Your task to perform on an android device: show emergency info Image 0: 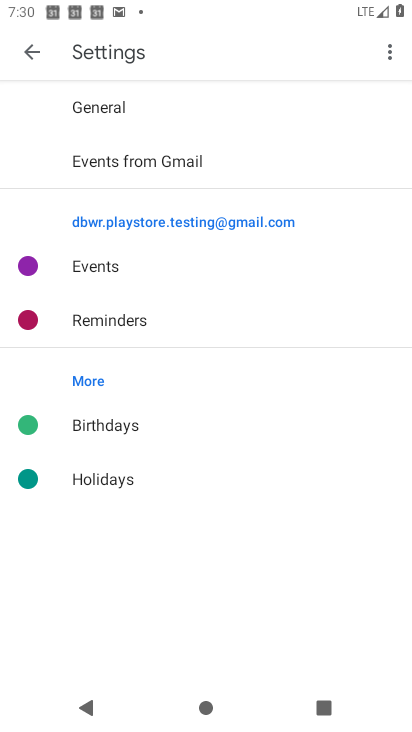
Step 0: press home button
Your task to perform on an android device: show emergency info Image 1: 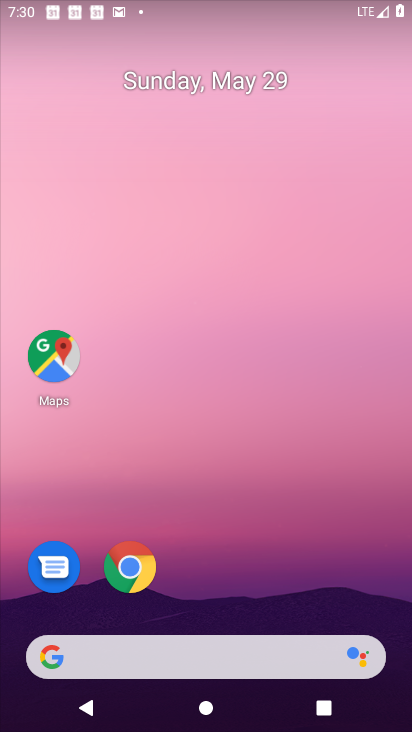
Step 1: click (139, 564)
Your task to perform on an android device: show emergency info Image 2: 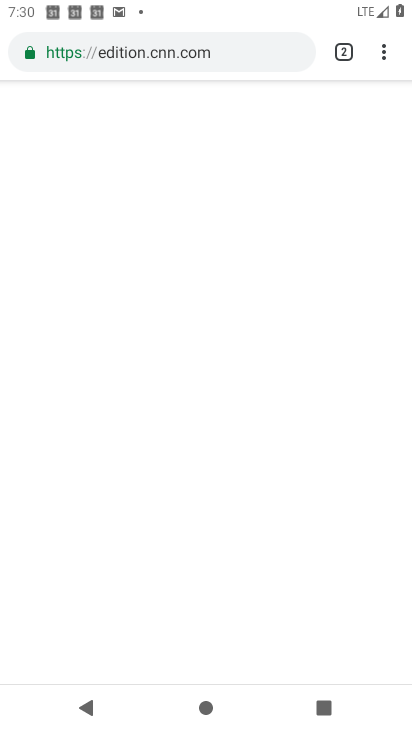
Step 2: press home button
Your task to perform on an android device: show emergency info Image 3: 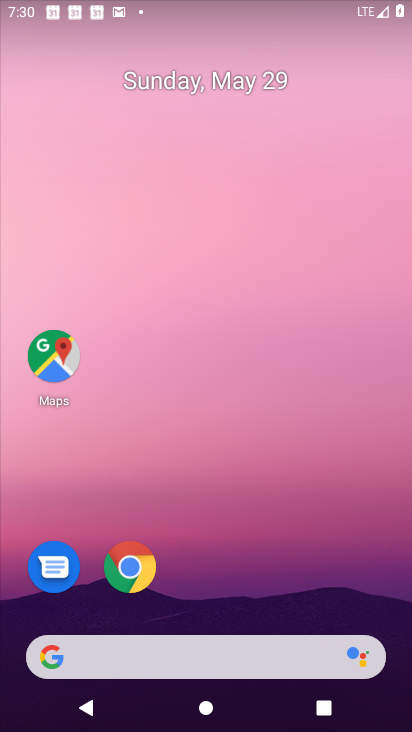
Step 3: drag from (221, 570) to (219, 209)
Your task to perform on an android device: show emergency info Image 4: 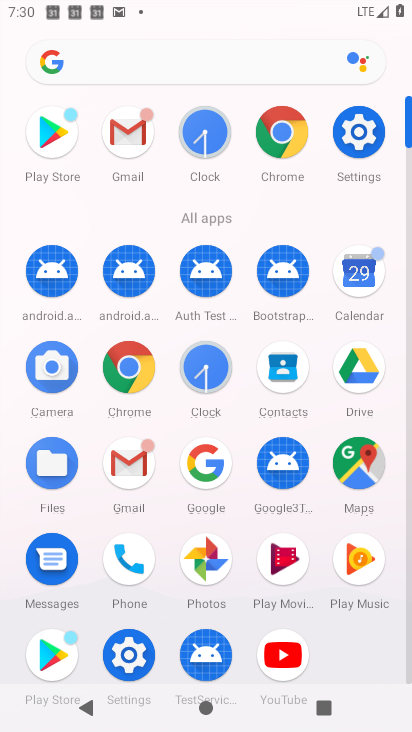
Step 4: click (355, 126)
Your task to perform on an android device: show emergency info Image 5: 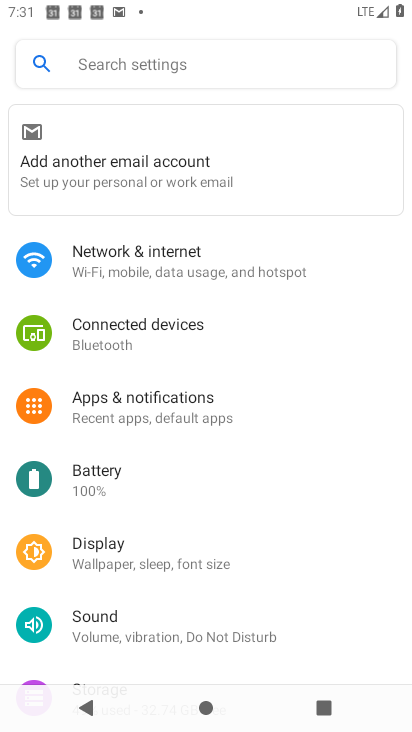
Step 5: drag from (207, 615) to (210, 282)
Your task to perform on an android device: show emergency info Image 6: 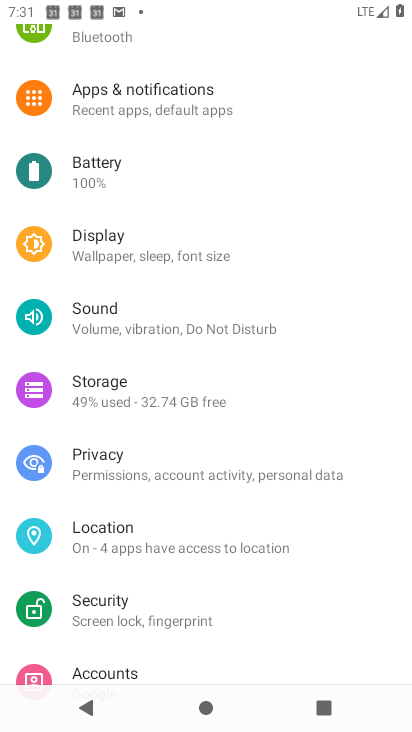
Step 6: drag from (152, 625) to (196, 239)
Your task to perform on an android device: show emergency info Image 7: 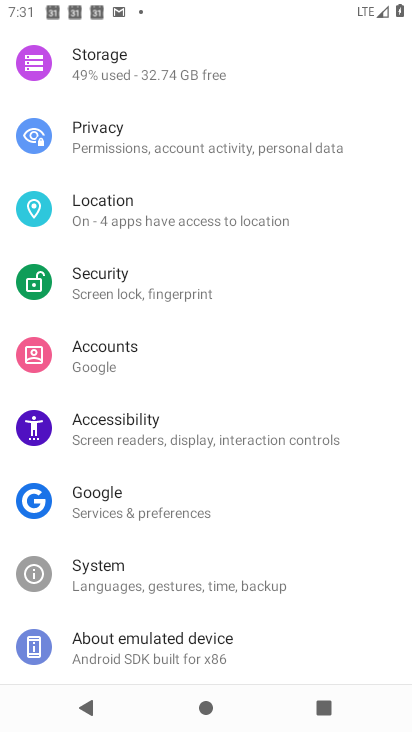
Step 7: click (132, 656)
Your task to perform on an android device: show emergency info Image 8: 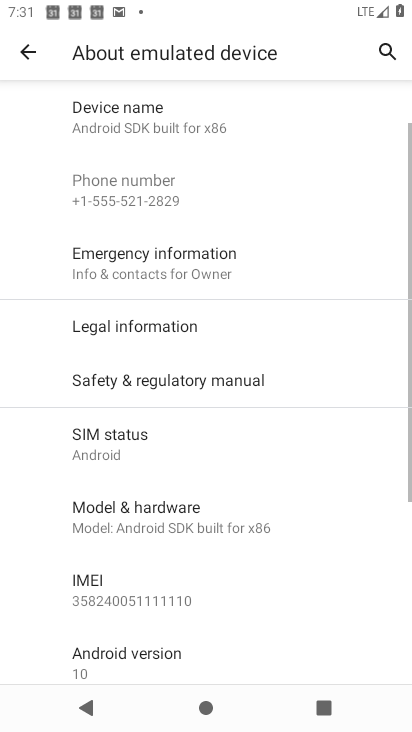
Step 8: click (192, 267)
Your task to perform on an android device: show emergency info Image 9: 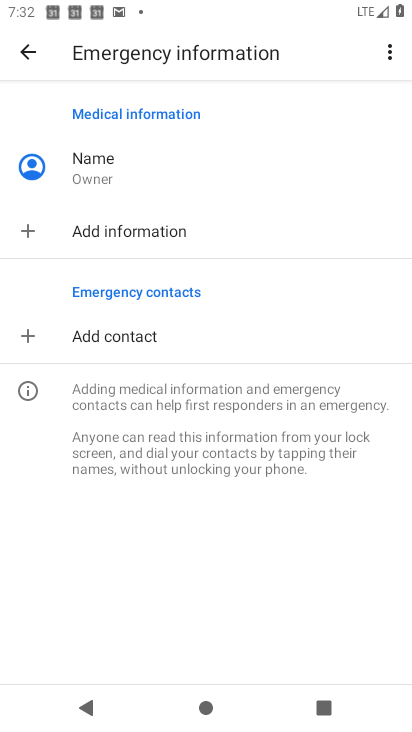
Step 9: task complete